Your task to perform on an android device: create a new album in the google photos Image 0: 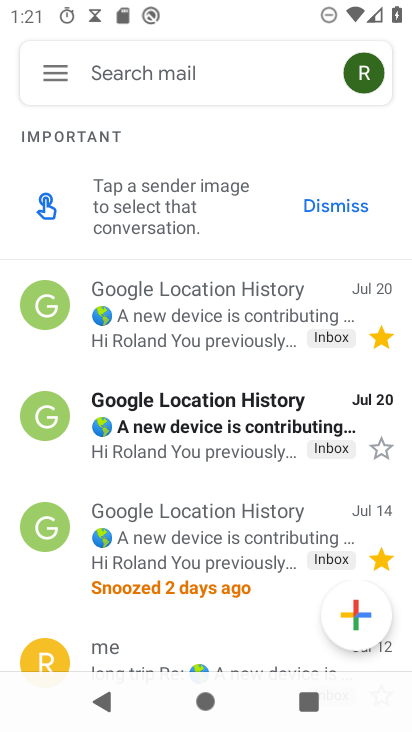
Step 0: press home button
Your task to perform on an android device: create a new album in the google photos Image 1: 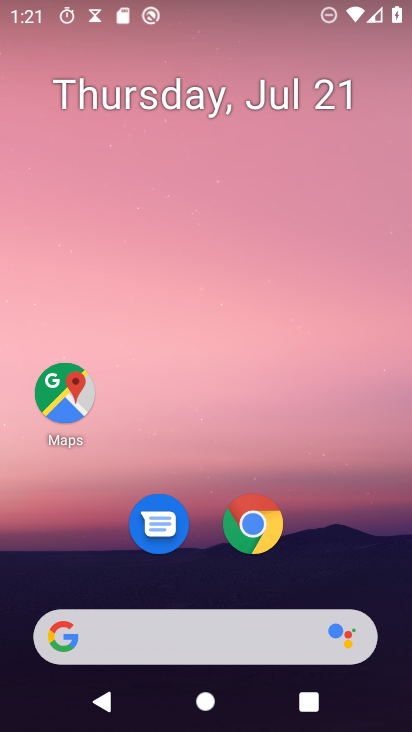
Step 1: drag from (147, 652) to (221, 176)
Your task to perform on an android device: create a new album in the google photos Image 2: 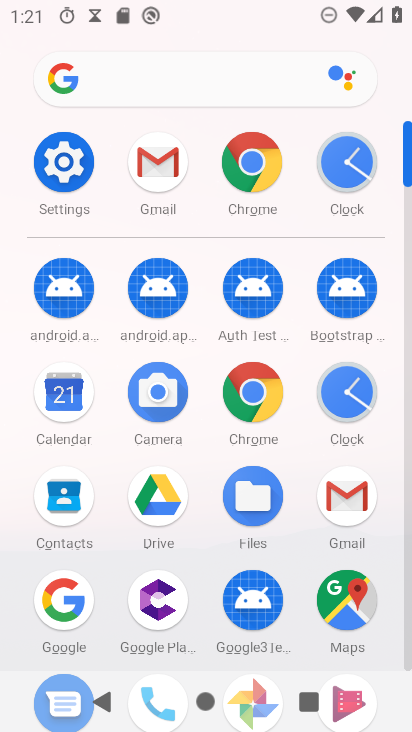
Step 2: drag from (191, 580) to (247, 280)
Your task to perform on an android device: create a new album in the google photos Image 3: 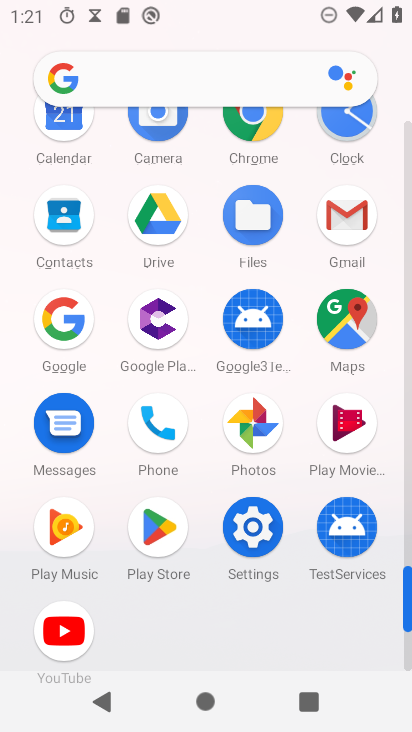
Step 3: click (257, 428)
Your task to perform on an android device: create a new album in the google photos Image 4: 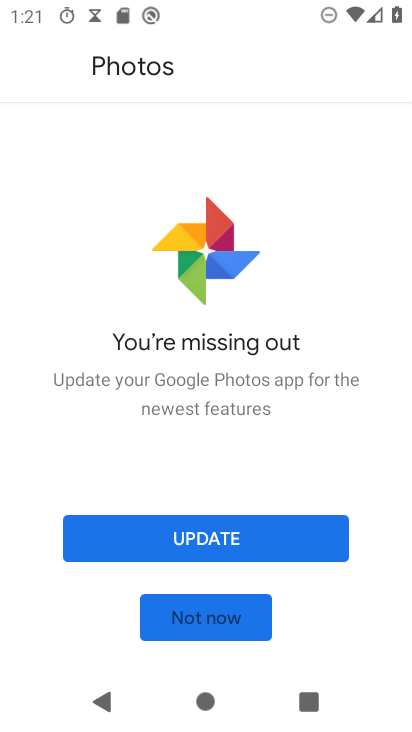
Step 4: click (182, 615)
Your task to perform on an android device: create a new album in the google photos Image 5: 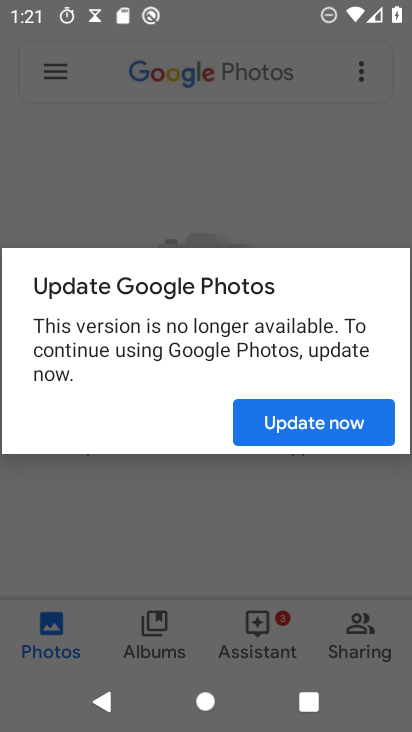
Step 5: click (274, 430)
Your task to perform on an android device: create a new album in the google photos Image 6: 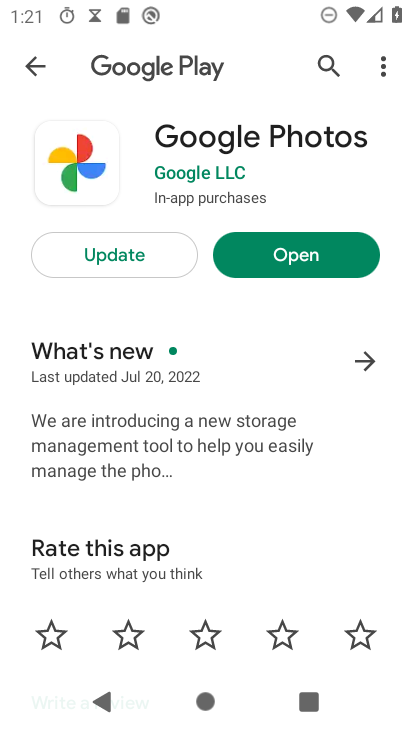
Step 6: click (348, 254)
Your task to perform on an android device: create a new album in the google photos Image 7: 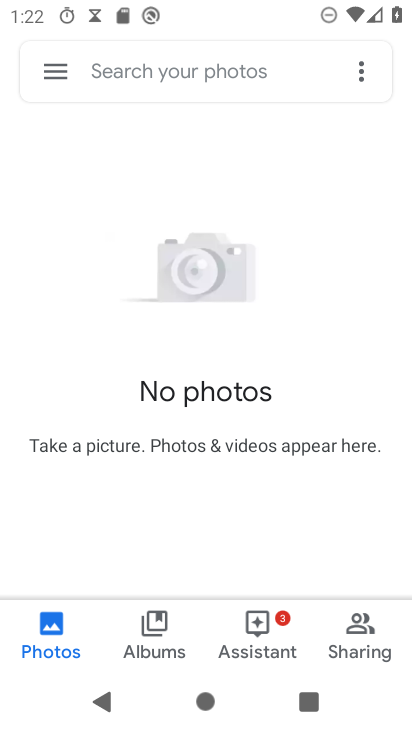
Step 7: click (165, 640)
Your task to perform on an android device: create a new album in the google photos Image 8: 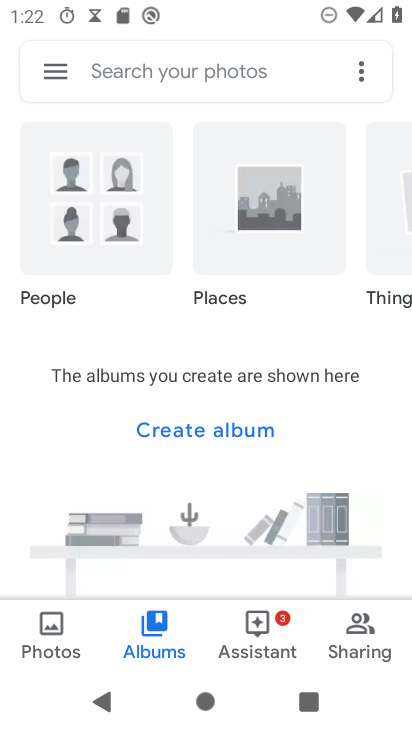
Step 8: task complete